Your task to perform on an android device: Open wifi settings Image 0: 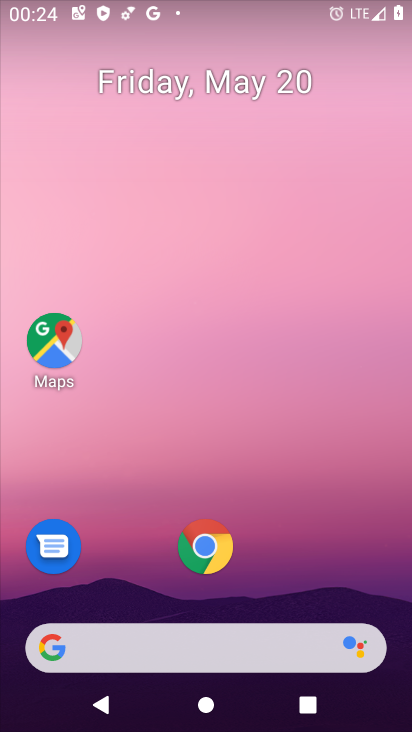
Step 0: drag from (310, 529) to (342, 142)
Your task to perform on an android device: Open wifi settings Image 1: 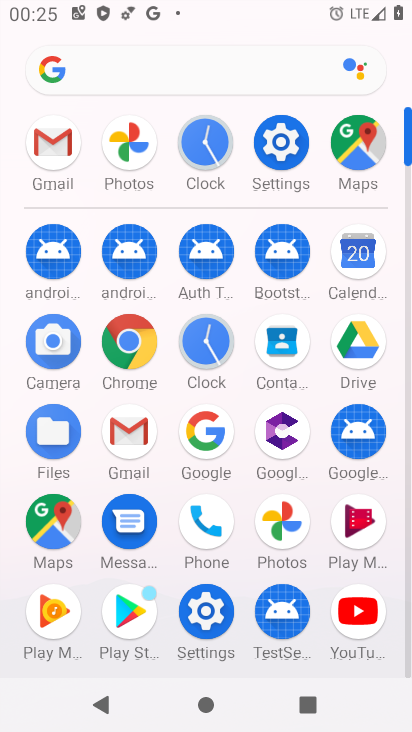
Step 1: click (299, 140)
Your task to perform on an android device: Open wifi settings Image 2: 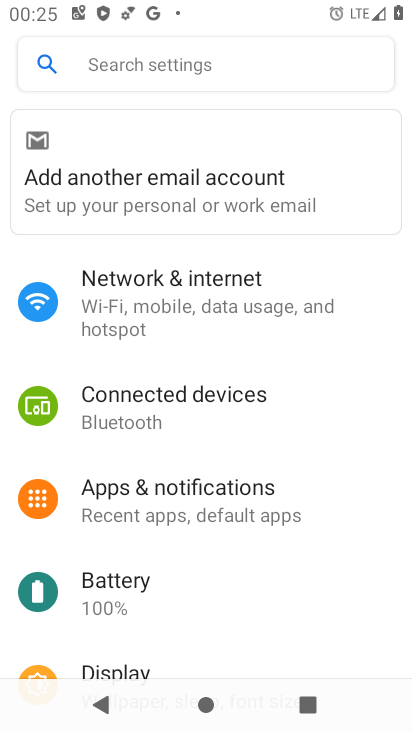
Step 2: click (249, 294)
Your task to perform on an android device: Open wifi settings Image 3: 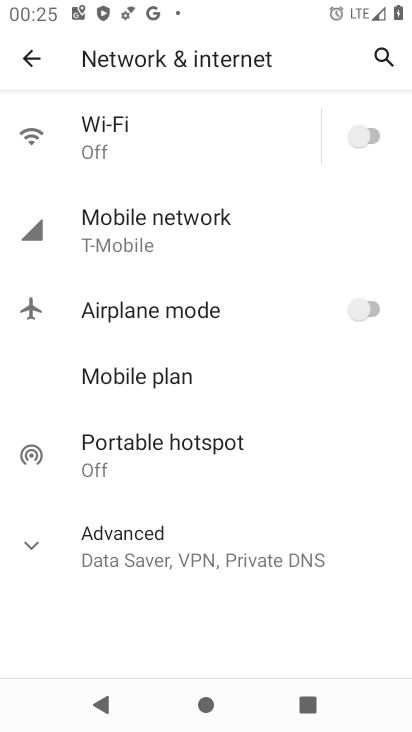
Step 3: click (267, 135)
Your task to perform on an android device: Open wifi settings Image 4: 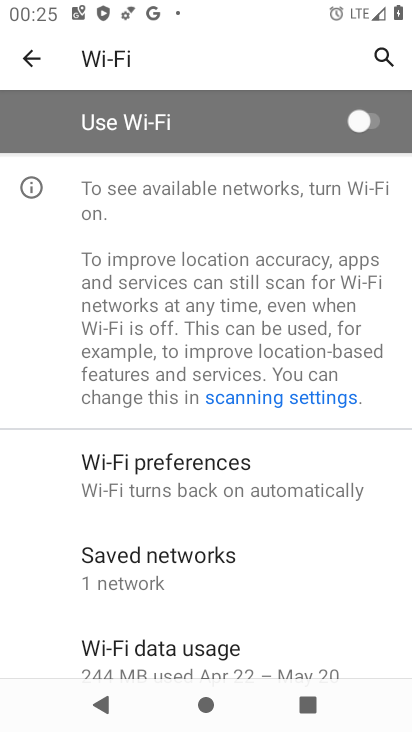
Step 4: click (361, 128)
Your task to perform on an android device: Open wifi settings Image 5: 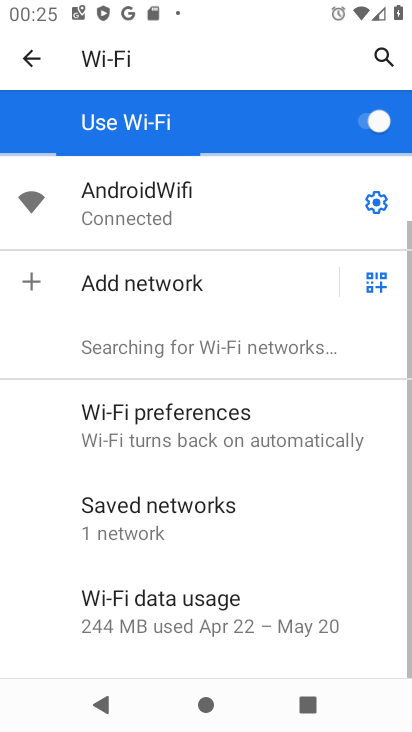
Step 5: click (373, 209)
Your task to perform on an android device: Open wifi settings Image 6: 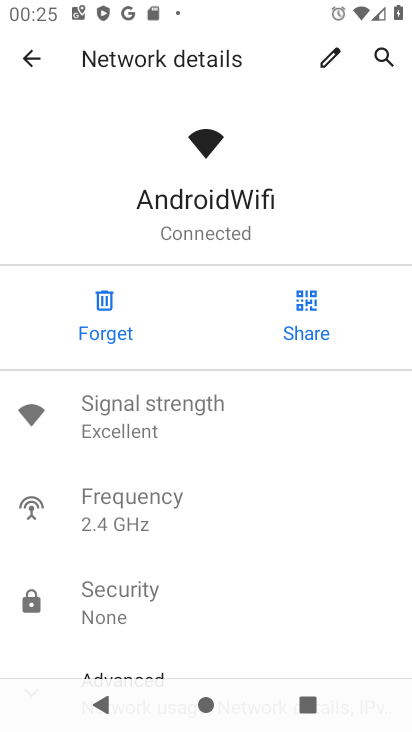
Step 6: task complete